Your task to perform on an android device: Clear the shopping cart on amazon. Search for "usb-c" on amazon, select the first entry, add it to the cart, then select checkout. Image 0: 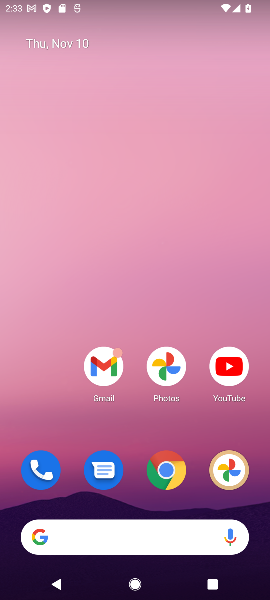
Step 0: click (167, 478)
Your task to perform on an android device: Clear the shopping cart on amazon. Search for "usb-c" on amazon, select the first entry, add it to the cart, then select checkout. Image 1: 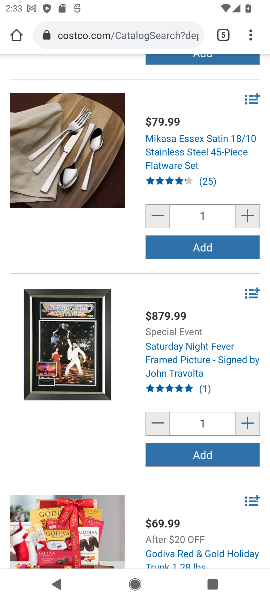
Step 1: click (221, 32)
Your task to perform on an android device: Clear the shopping cart on amazon. Search for "usb-c" on amazon, select the first entry, add it to the cart, then select checkout. Image 2: 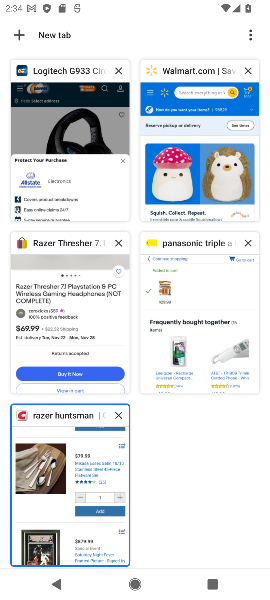
Step 2: click (13, 34)
Your task to perform on an android device: Clear the shopping cart on amazon. Search for "usb-c" on amazon, select the first entry, add it to the cart, then select checkout. Image 3: 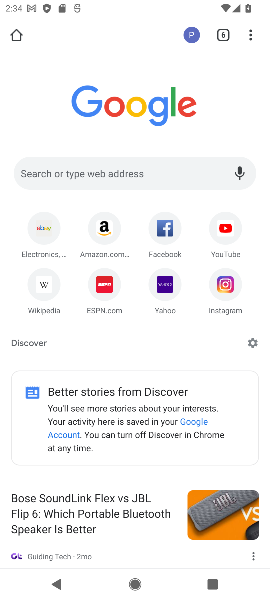
Step 3: click (71, 170)
Your task to perform on an android device: Clear the shopping cart on amazon. Search for "usb-c" on amazon, select the first entry, add it to the cart, then select checkout. Image 4: 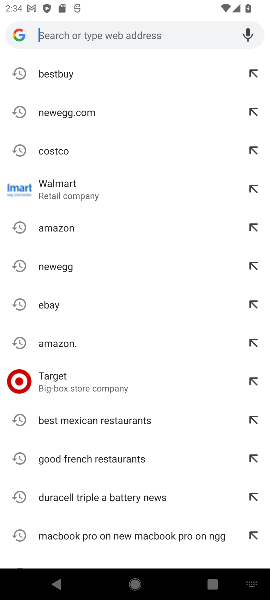
Step 4: click (53, 226)
Your task to perform on an android device: Clear the shopping cart on amazon. Search for "usb-c" on amazon, select the first entry, add it to the cart, then select checkout. Image 5: 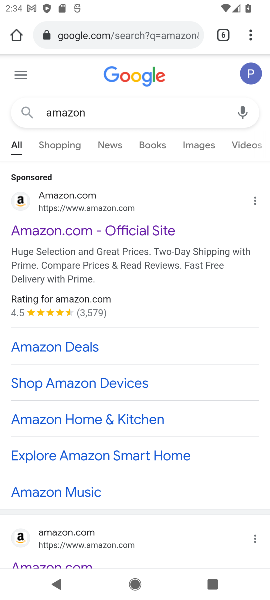
Step 5: click (88, 233)
Your task to perform on an android device: Clear the shopping cart on amazon. Search for "usb-c" on amazon, select the first entry, add it to the cart, then select checkout. Image 6: 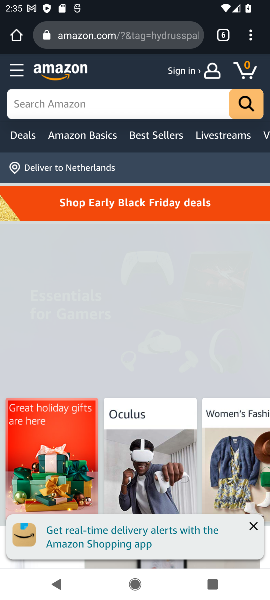
Step 6: click (69, 99)
Your task to perform on an android device: Clear the shopping cart on amazon. Search for "usb-c" on amazon, select the first entry, add it to the cart, then select checkout. Image 7: 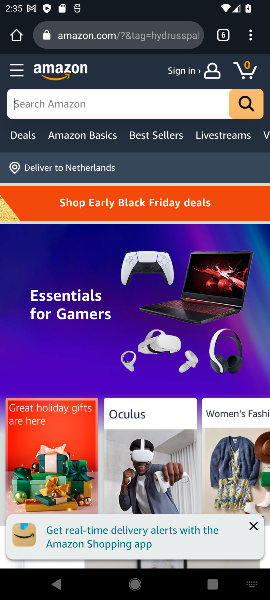
Step 7: type "usb-c"
Your task to perform on an android device: Clear the shopping cart on amazon. Search for "usb-c" on amazon, select the first entry, add it to the cart, then select checkout. Image 8: 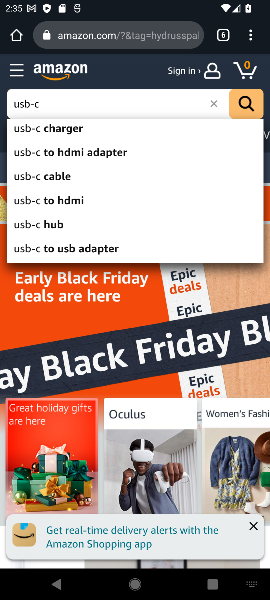
Step 8: click (40, 177)
Your task to perform on an android device: Clear the shopping cart on amazon. Search for "usb-c" on amazon, select the first entry, add it to the cart, then select checkout. Image 9: 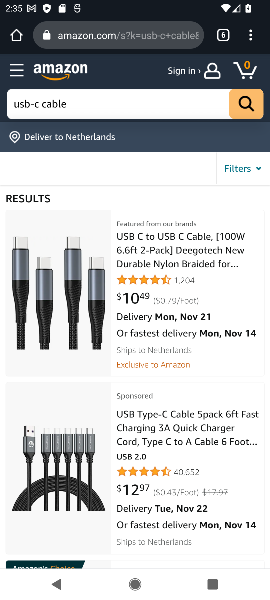
Step 9: click (127, 259)
Your task to perform on an android device: Clear the shopping cart on amazon. Search for "usb-c" on amazon, select the first entry, add it to the cart, then select checkout. Image 10: 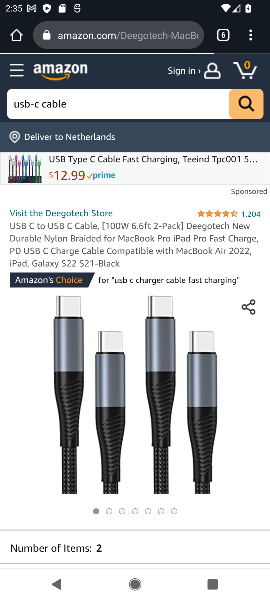
Step 10: drag from (186, 487) to (170, 116)
Your task to perform on an android device: Clear the shopping cart on amazon. Search for "usb-c" on amazon, select the first entry, add it to the cart, then select checkout. Image 11: 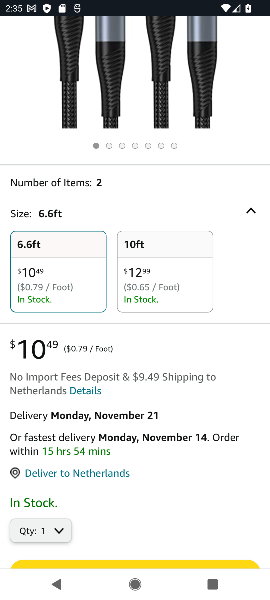
Step 11: drag from (206, 372) to (201, 213)
Your task to perform on an android device: Clear the shopping cart on amazon. Search for "usb-c" on amazon, select the first entry, add it to the cart, then select checkout. Image 12: 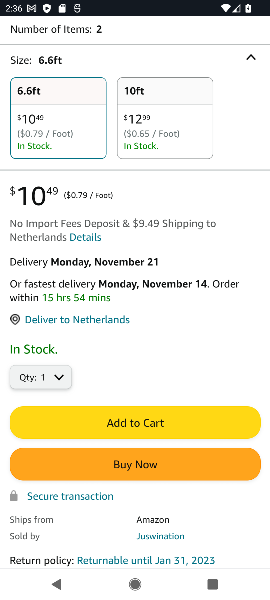
Step 12: click (140, 423)
Your task to perform on an android device: Clear the shopping cart on amazon. Search for "usb-c" on amazon, select the first entry, add it to the cart, then select checkout. Image 13: 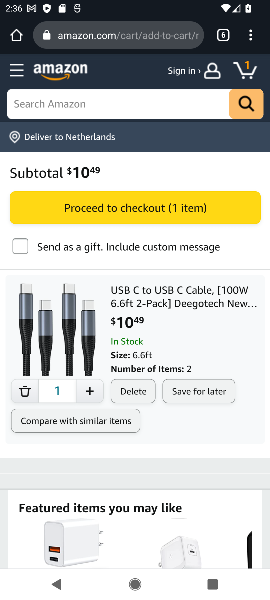
Step 13: task complete